Your task to perform on an android device: When is my next appointment? Image 0: 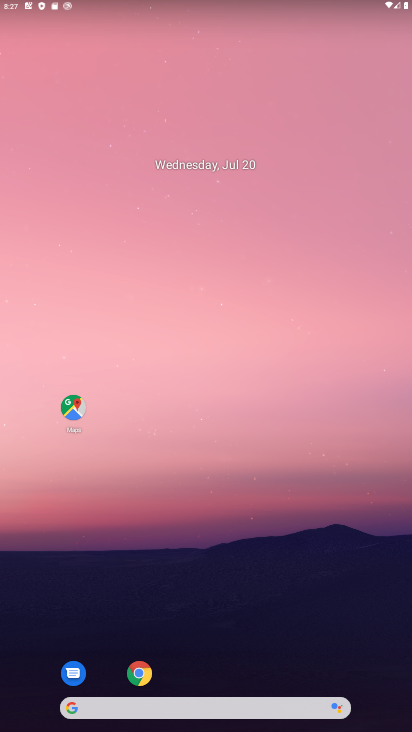
Step 0: drag from (196, 608) to (268, 21)
Your task to perform on an android device: When is my next appointment? Image 1: 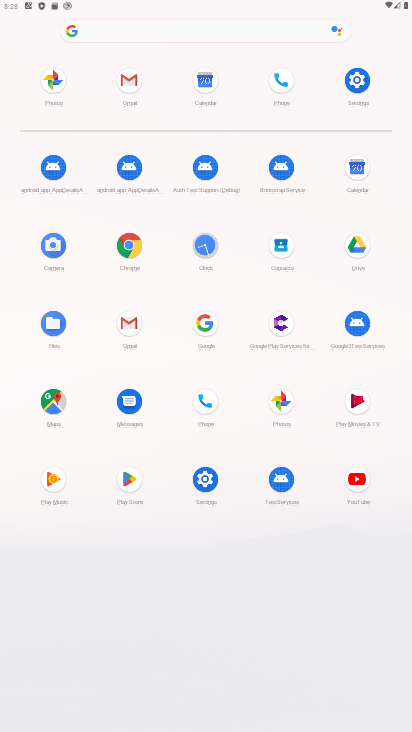
Step 1: click (362, 169)
Your task to perform on an android device: When is my next appointment? Image 2: 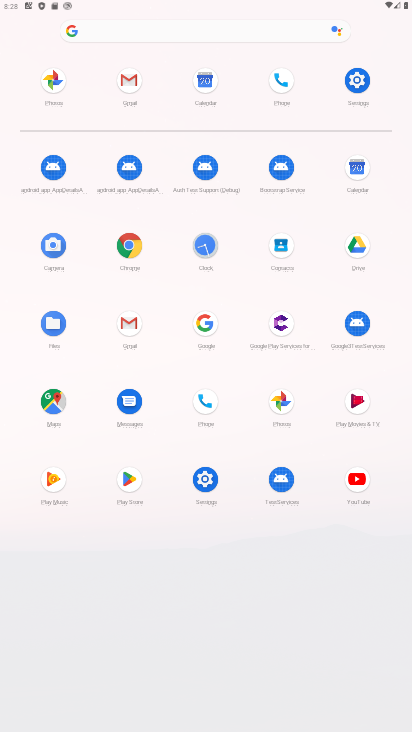
Step 2: click (362, 169)
Your task to perform on an android device: When is my next appointment? Image 3: 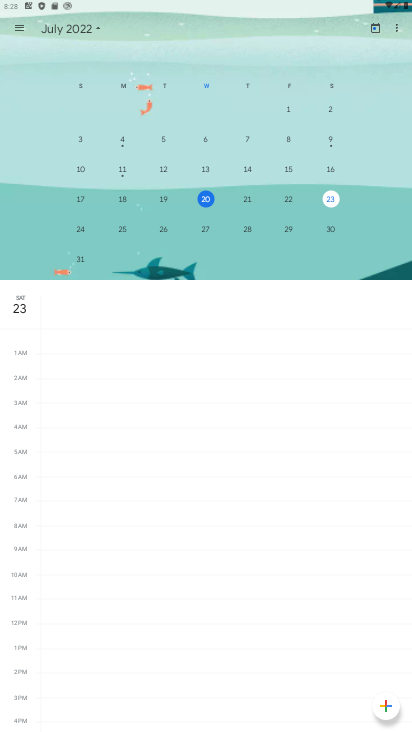
Step 3: click (373, 28)
Your task to perform on an android device: When is my next appointment? Image 4: 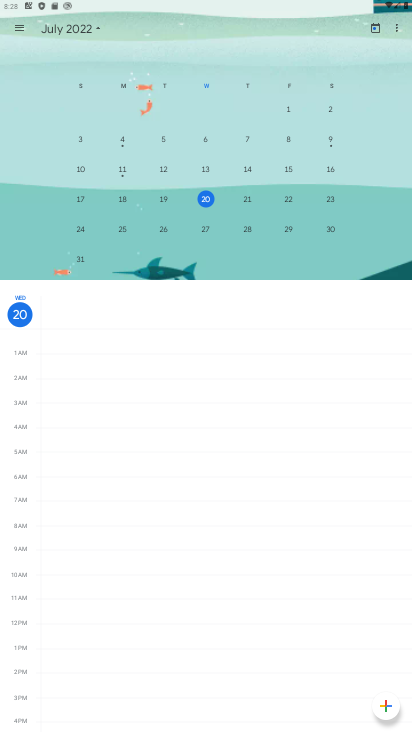
Step 4: click (377, 25)
Your task to perform on an android device: When is my next appointment? Image 5: 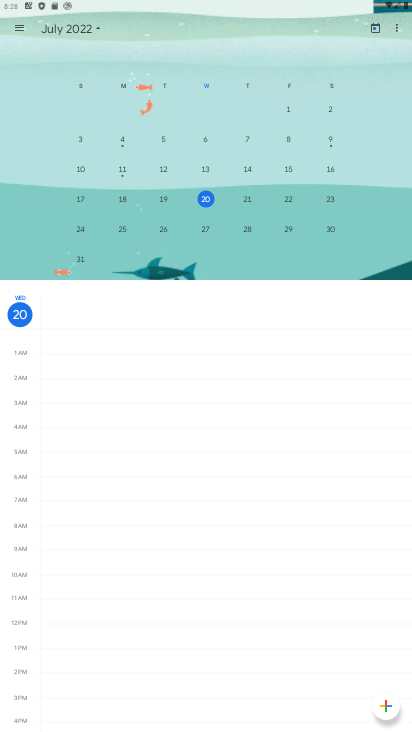
Step 5: click (74, 24)
Your task to perform on an android device: When is my next appointment? Image 6: 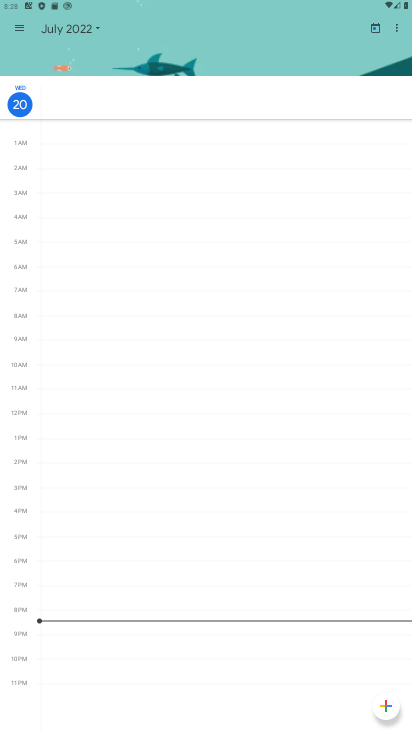
Step 6: task complete